Your task to perform on an android device: Open a new Chrome tab Image 0: 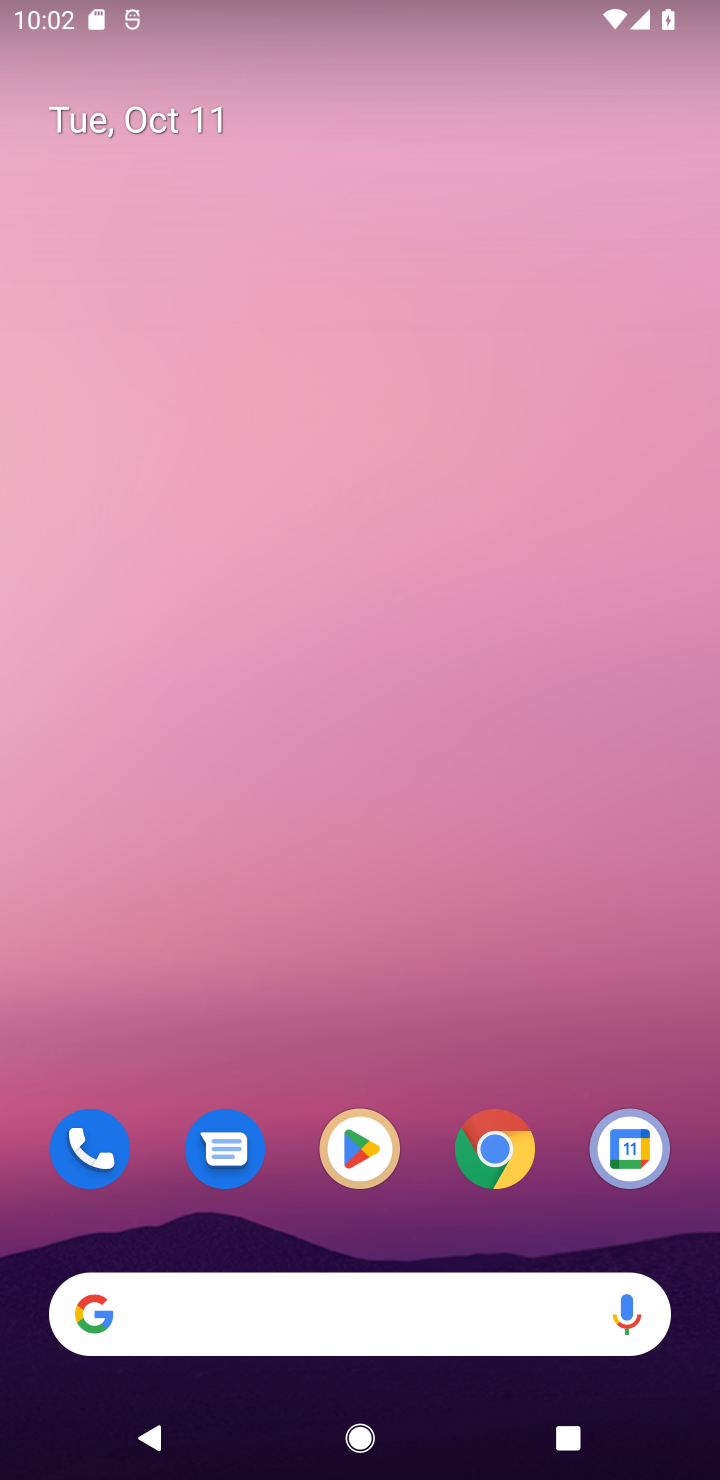
Step 0: click (491, 1176)
Your task to perform on an android device: Open a new Chrome tab Image 1: 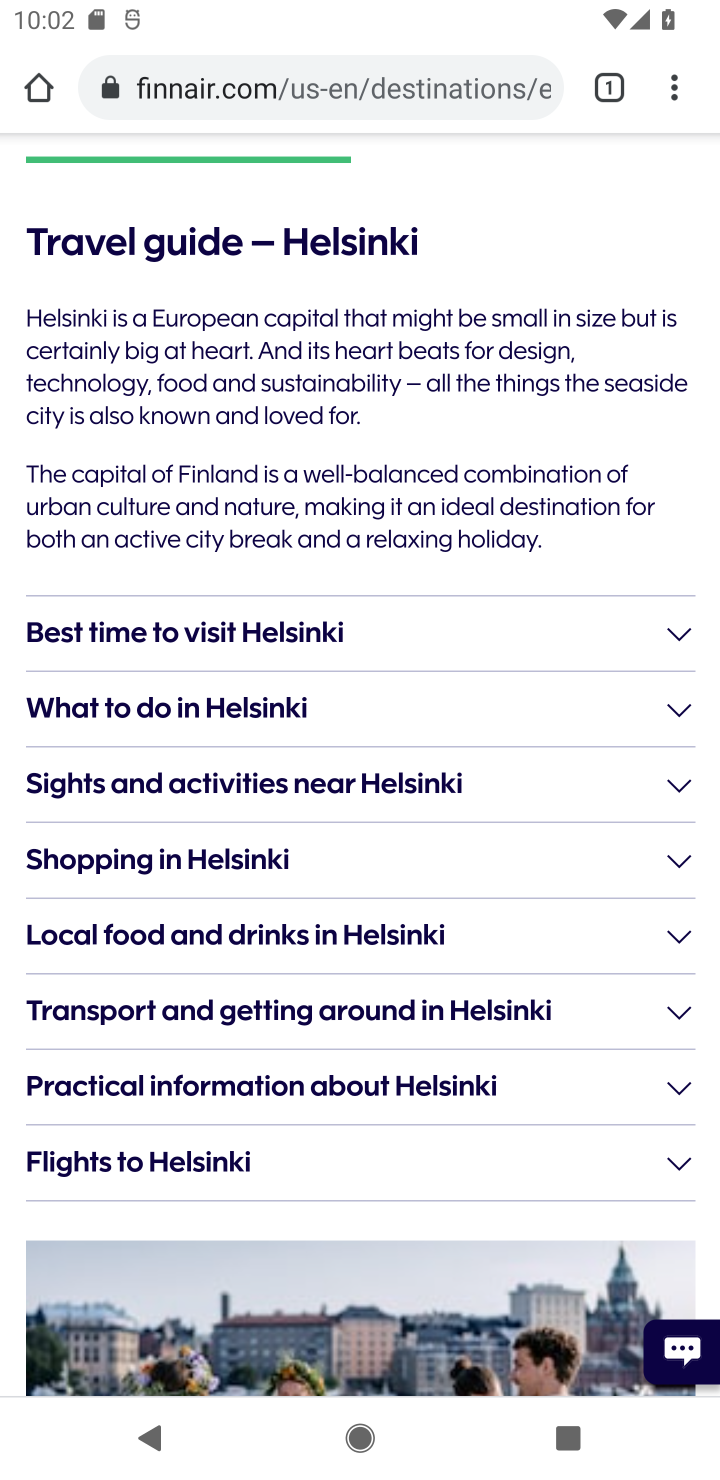
Step 1: click (613, 93)
Your task to perform on an android device: Open a new Chrome tab Image 2: 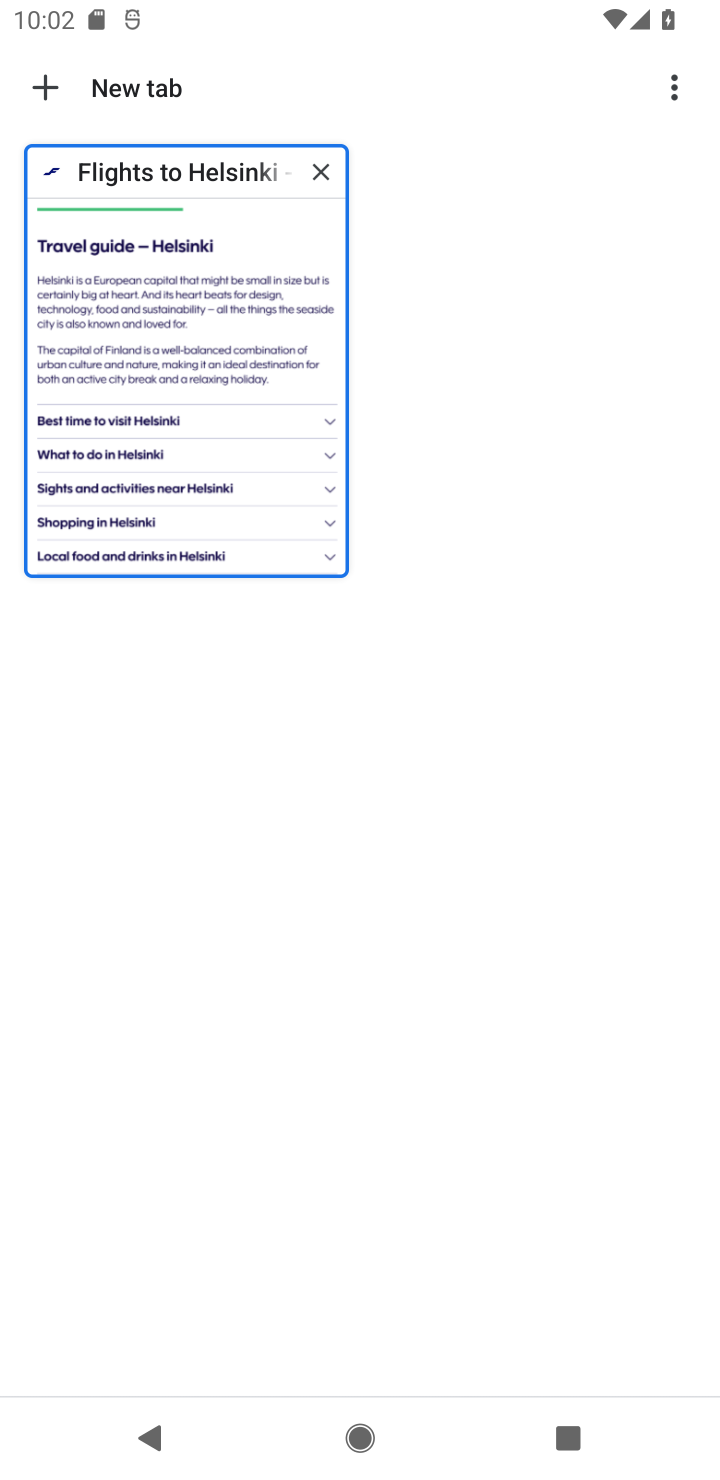
Step 2: click (60, 93)
Your task to perform on an android device: Open a new Chrome tab Image 3: 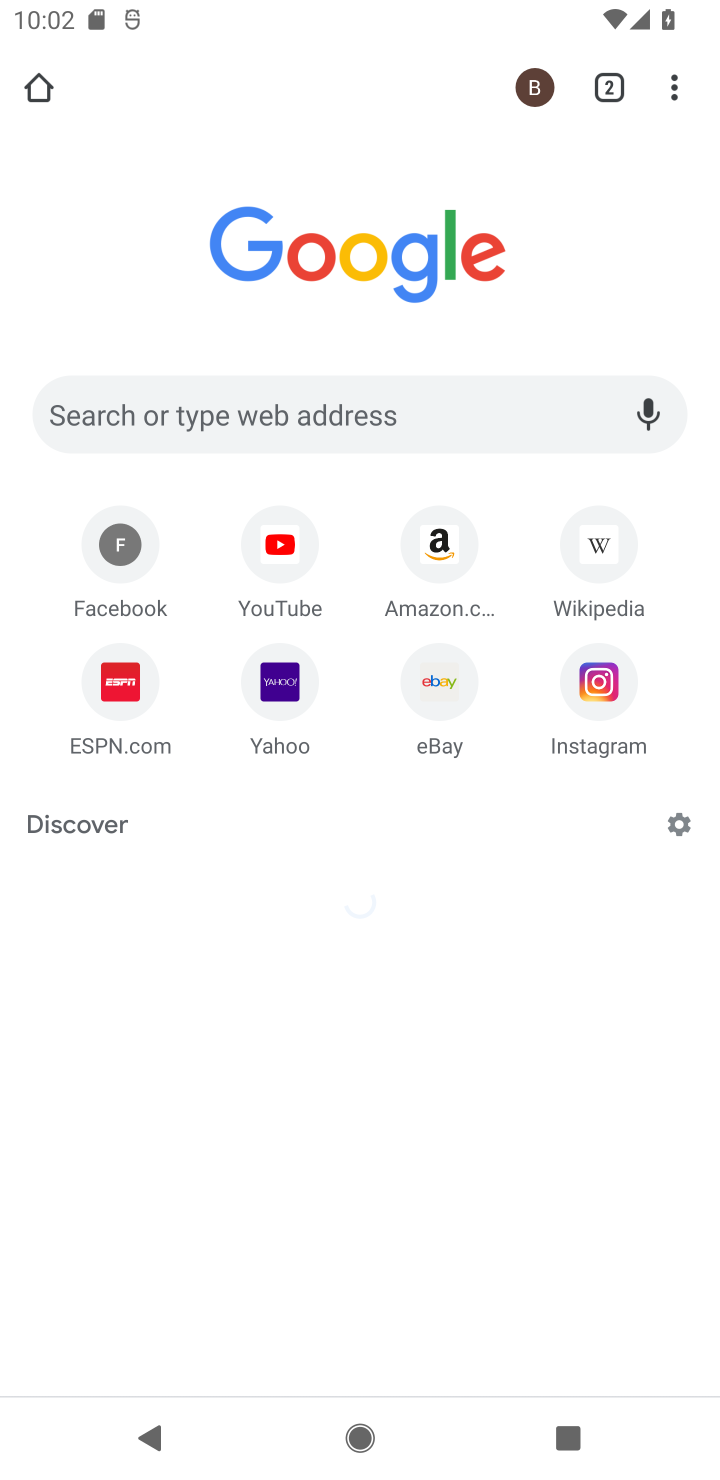
Step 3: task complete